Your task to perform on an android device: Add acer predator to the cart on bestbuy Image 0: 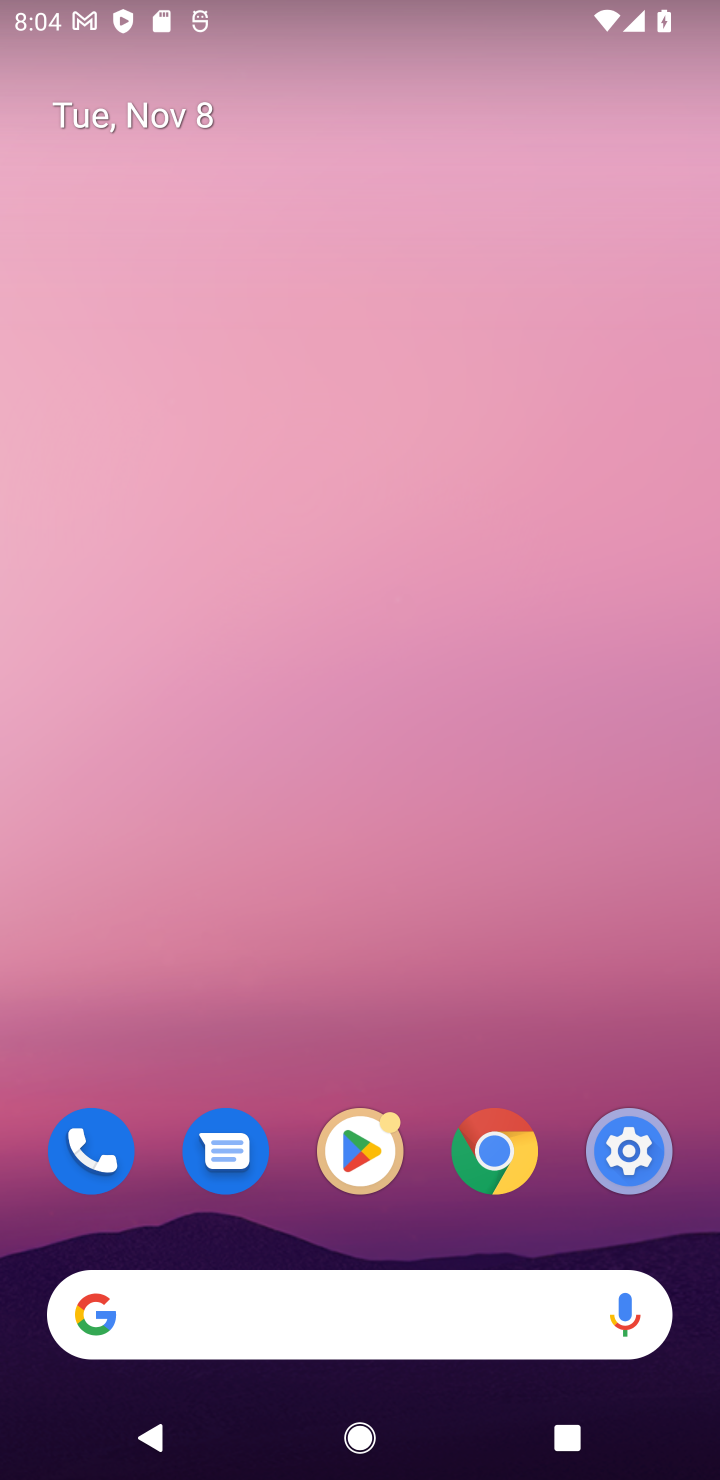
Step 0: click (447, 1316)
Your task to perform on an android device: Add acer predator to the cart on bestbuy Image 1: 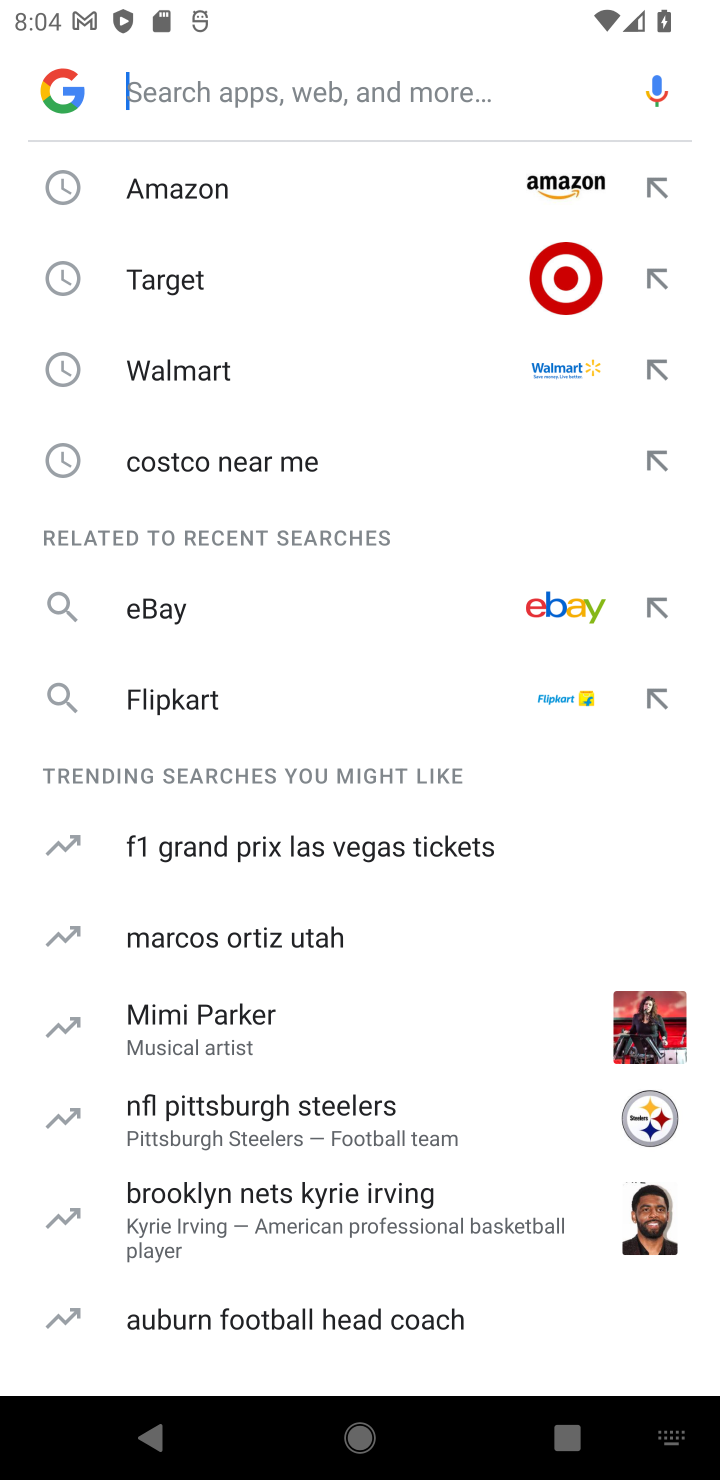
Step 1: type "bestbuy"
Your task to perform on an android device: Add acer predator to the cart on bestbuy Image 2: 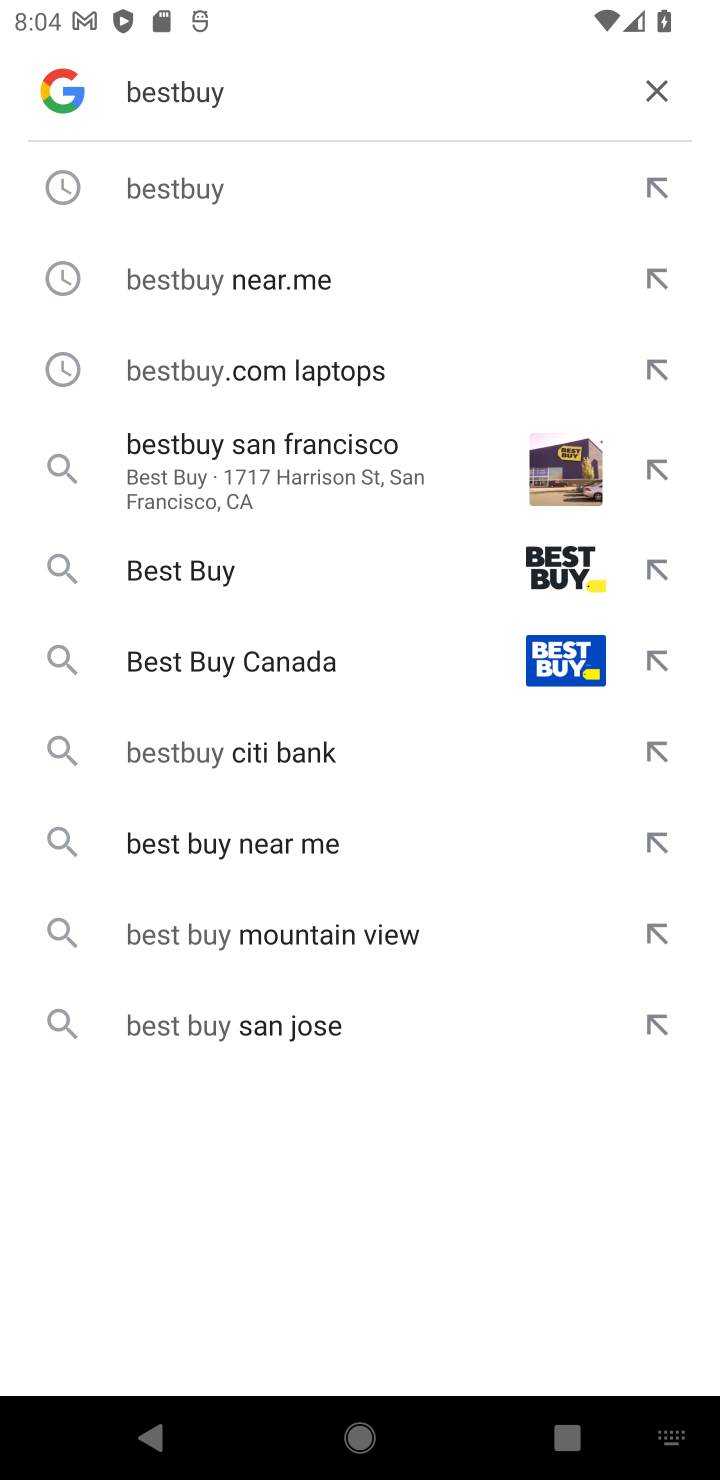
Step 2: click (204, 207)
Your task to perform on an android device: Add acer predator to the cart on bestbuy Image 3: 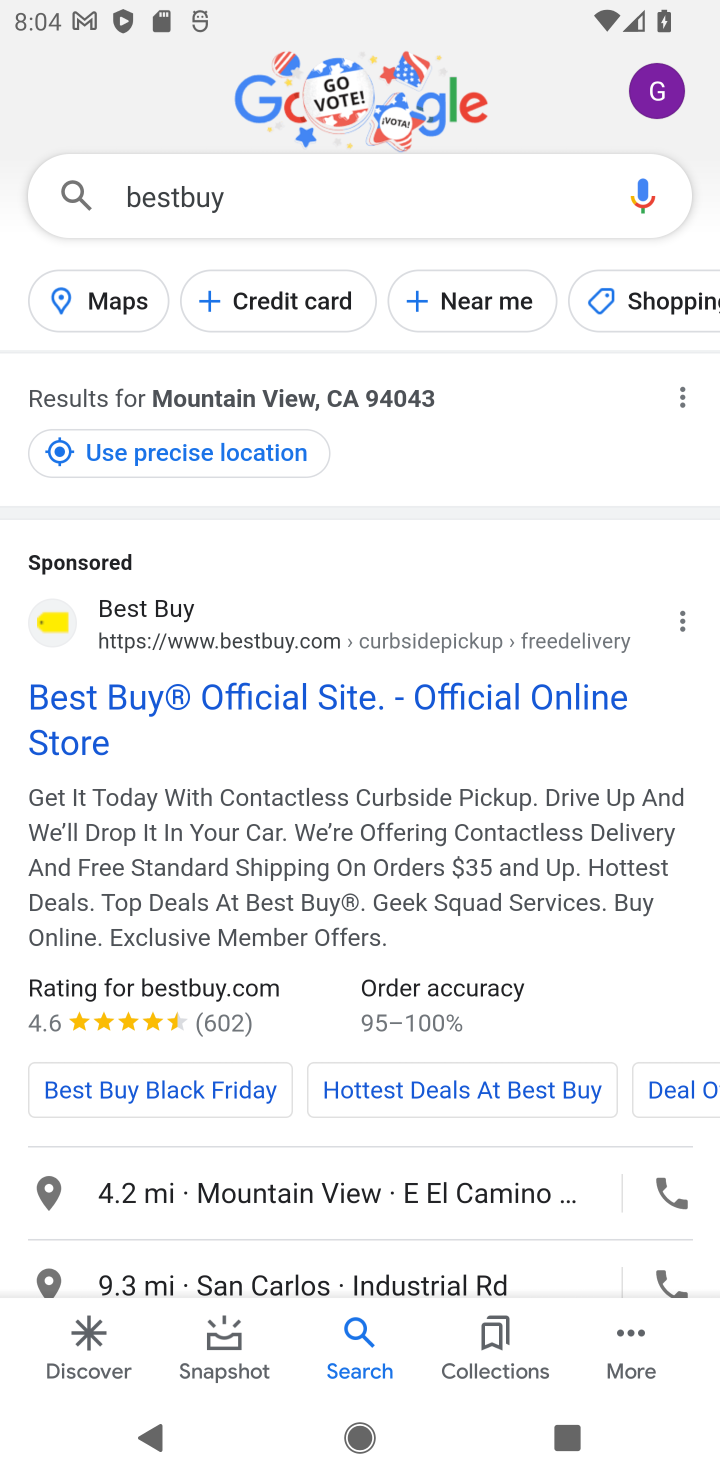
Step 3: click (250, 721)
Your task to perform on an android device: Add acer predator to the cart on bestbuy Image 4: 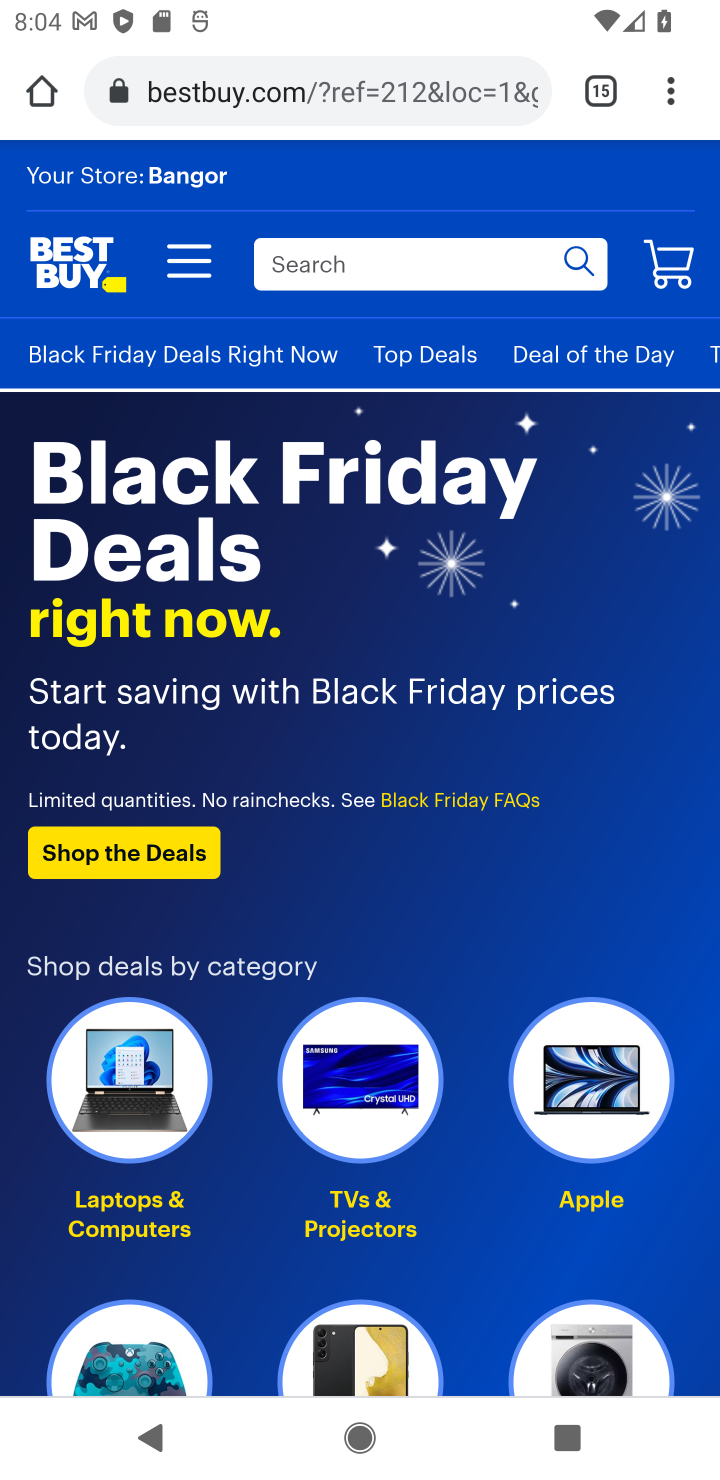
Step 4: task complete